Your task to perform on an android device: turn notification dots on Image 0: 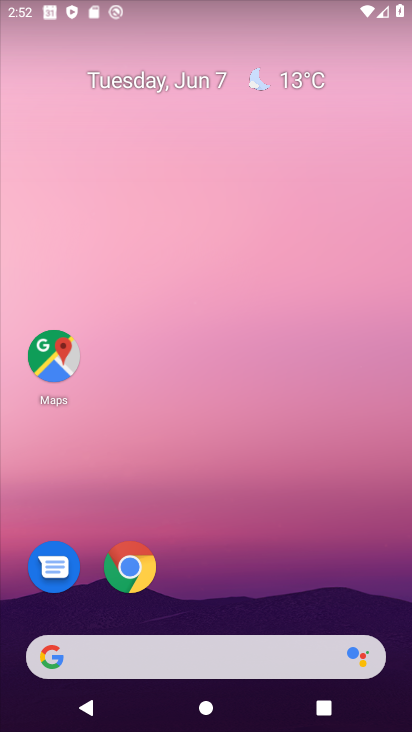
Step 0: drag from (205, 526) to (250, 39)
Your task to perform on an android device: turn notification dots on Image 1: 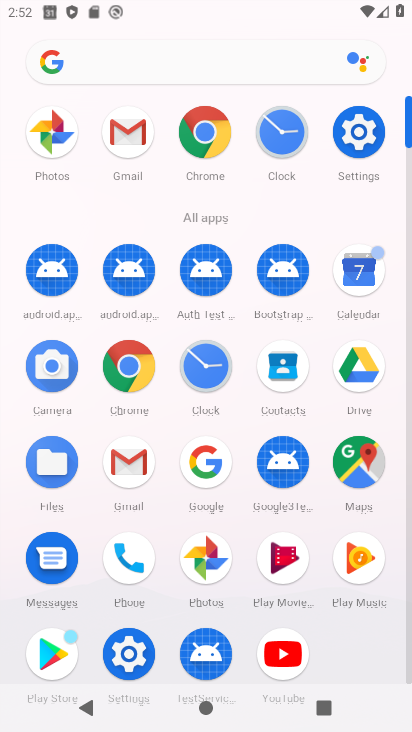
Step 1: click (356, 131)
Your task to perform on an android device: turn notification dots on Image 2: 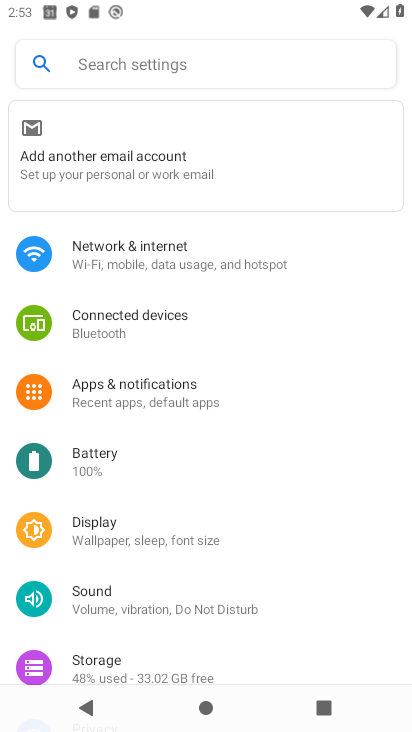
Step 2: click (173, 389)
Your task to perform on an android device: turn notification dots on Image 3: 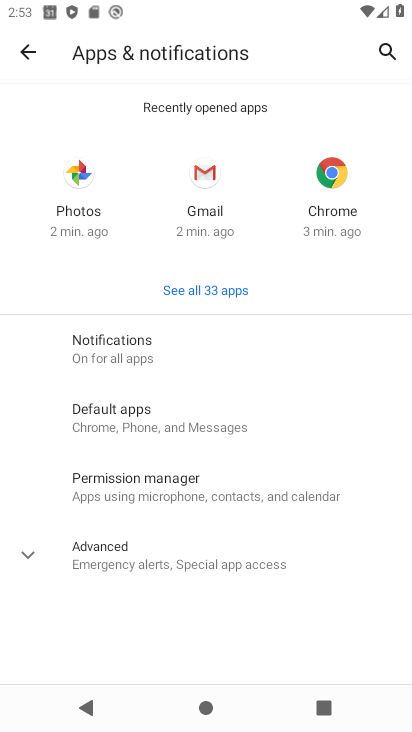
Step 3: click (149, 336)
Your task to perform on an android device: turn notification dots on Image 4: 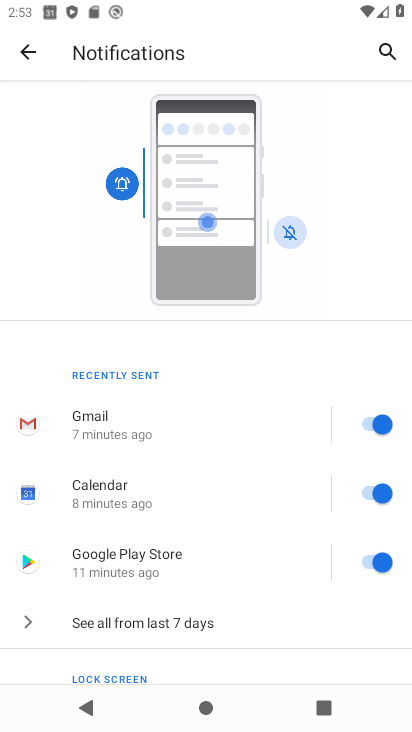
Step 4: drag from (169, 582) to (223, 107)
Your task to perform on an android device: turn notification dots on Image 5: 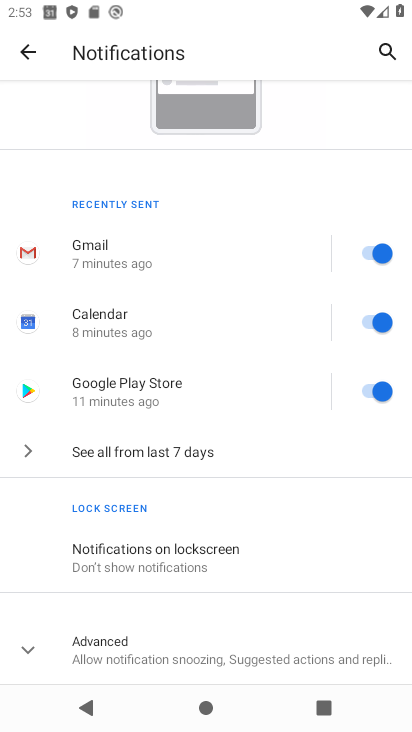
Step 5: click (192, 547)
Your task to perform on an android device: turn notification dots on Image 6: 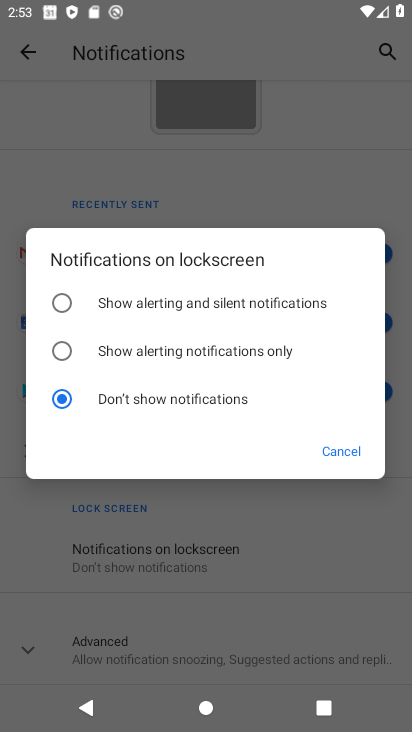
Step 6: click (230, 526)
Your task to perform on an android device: turn notification dots on Image 7: 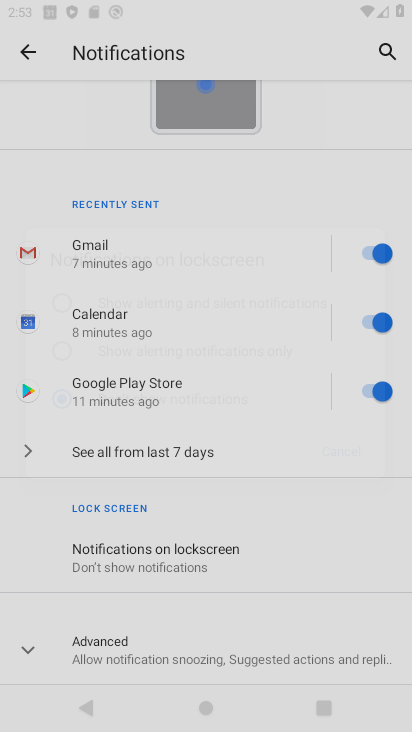
Step 7: click (348, 448)
Your task to perform on an android device: turn notification dots on Image 8: 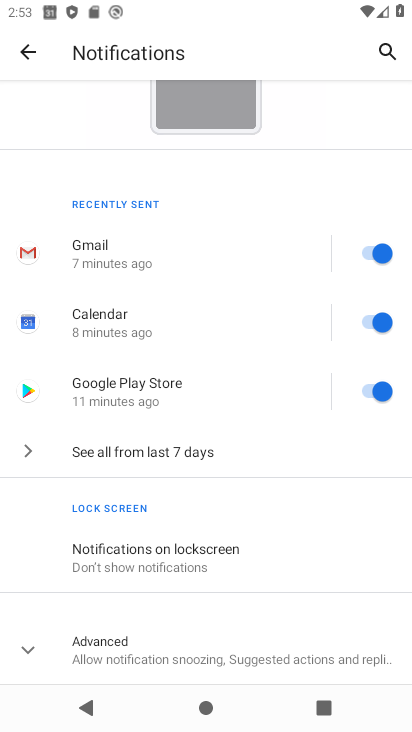
Step 8: click (186, 644)
Your task to perform on an android device: turn notification dots on Image 9: 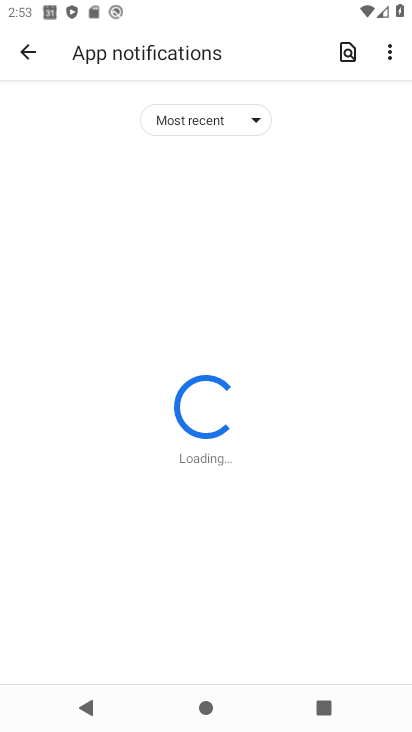
Step 9: drag from (196, 619) to (257, 168)
Your task to perform on an android device: turn notification dots on Image 10: 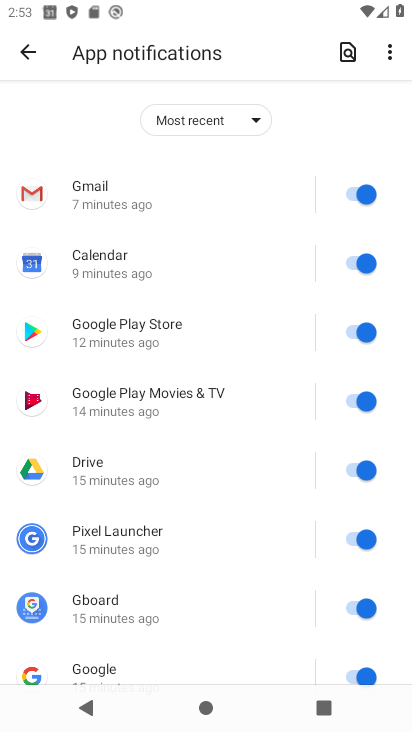
Step 10: drag from (166, 608) to (247, 95)
Your task to perform on an android device: turn notification dots on Image 11: 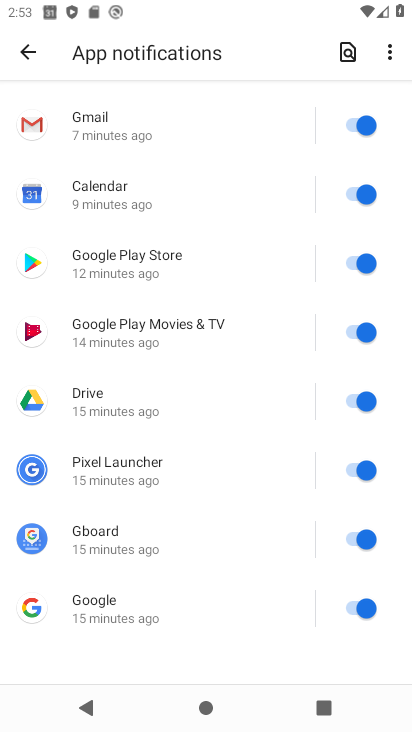
Step 11: click (26, 44)
Your task to perform on an android device: turn notification dots on Image 12: 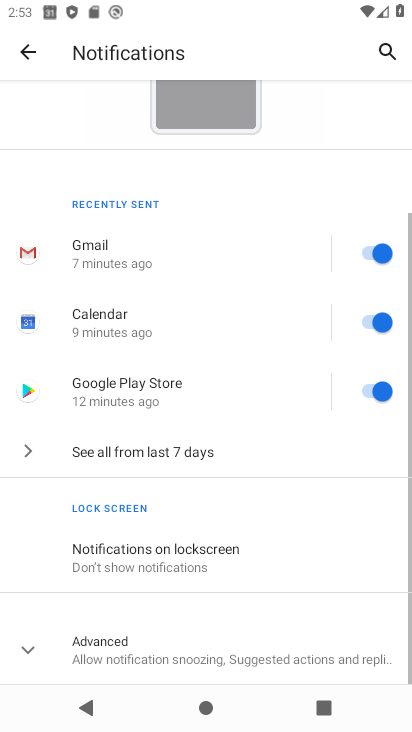
Step 12: drag from (158, 649) to (260, 155)
Your task to perform on an android device: turn notification dots on Image 13: 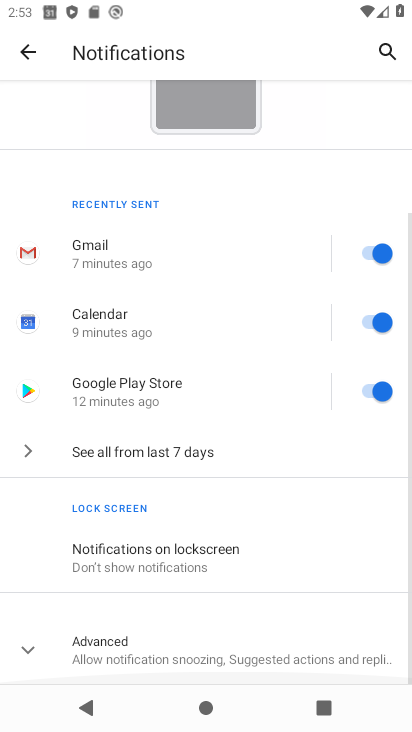
Step 13: click (177, 646)
Your task to perform on an android device: turn notification dots on Image 14: 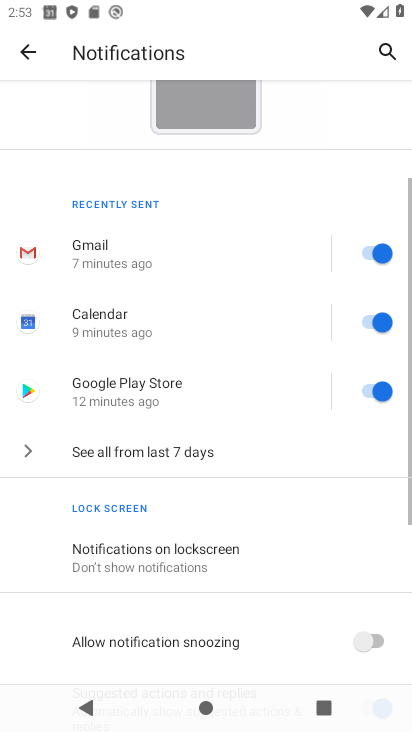
Step 14: task complete